Your task to perform on an android device: Do I have any events today? Image 0: 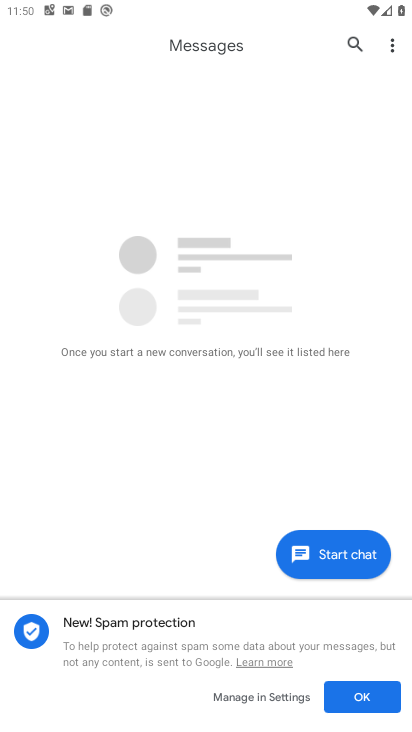
Step 0: drag from (252, 582) to (255, 446)
Your task to perform on an android device: Do I have any events today? Image 1: 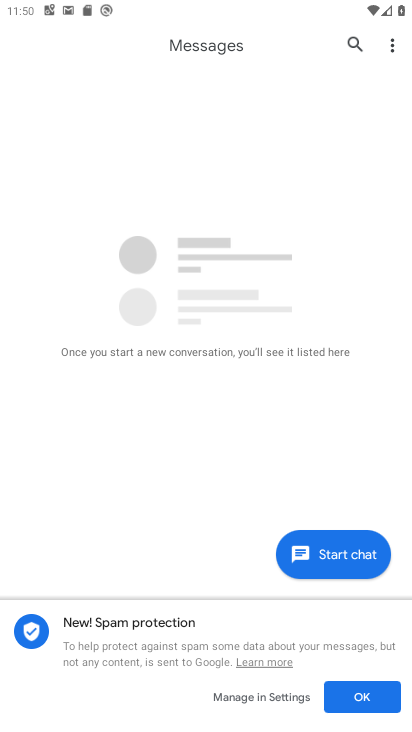
Step 1: press home button
Your task to perform on an android device: Do I have any events today? Image 2: 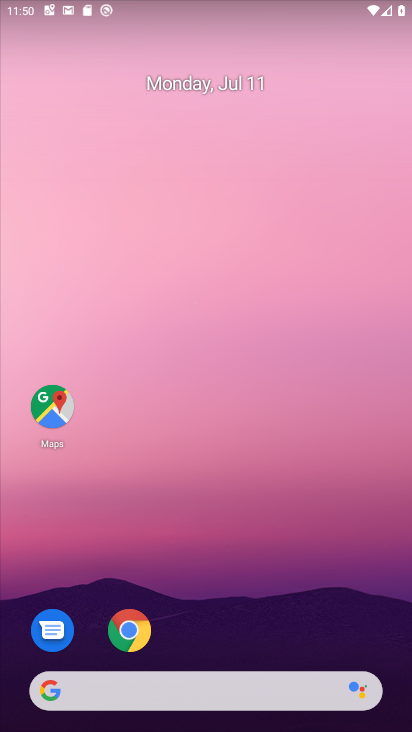
Step 2: drag from (250, 629) to (302, 239)
Your task to perform on an android device: Do I have any events today? Image 3: 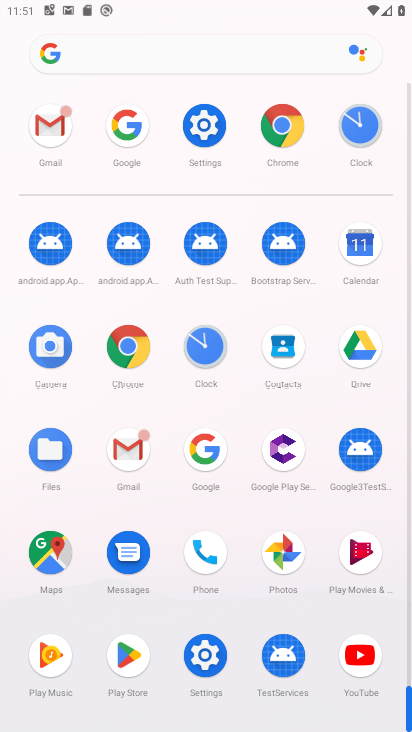
Step 3: click (357, 261)
Your task to perform on an android device: Do I have any events today? Image 4: 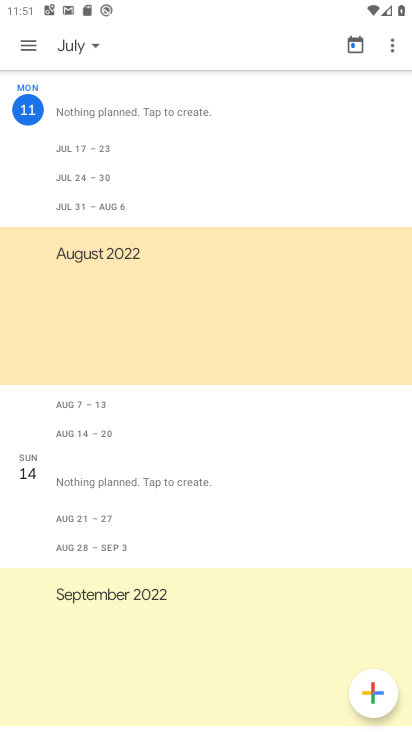
Step 4: task complete